Your task to perform on an android device: Find coffee shops on Maps Image 0: 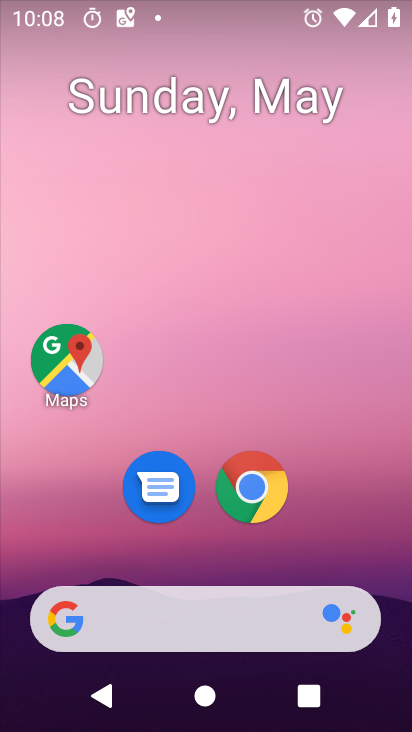
Step 0: drag from (182, 561) to (263, 188)
Your task to perform on an android device: Find coffee shops on Maps Image 1: 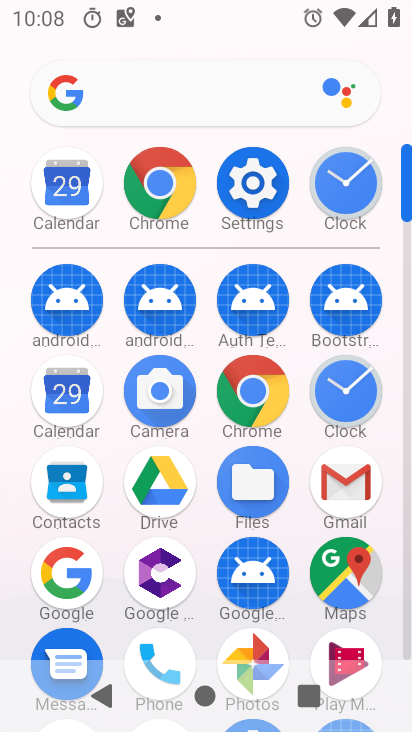
Step 1: click (360, 561)
Your task to perform on an android device: Find coffee shops on Maps Image 2: 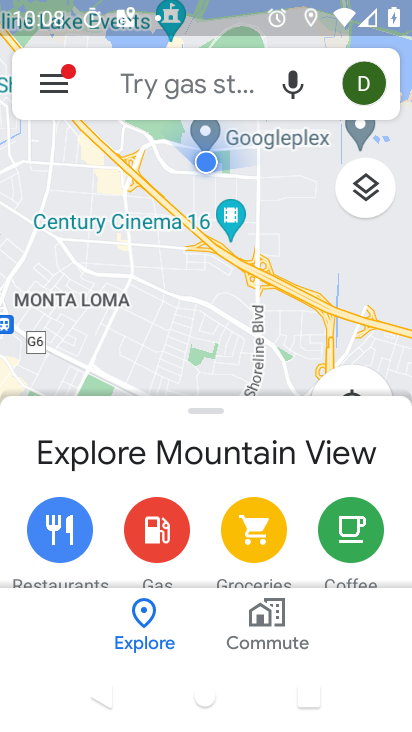
Step 2: click (157, 83)
Your task to perform on an android device: Find coffee shops on Maps Image 3: 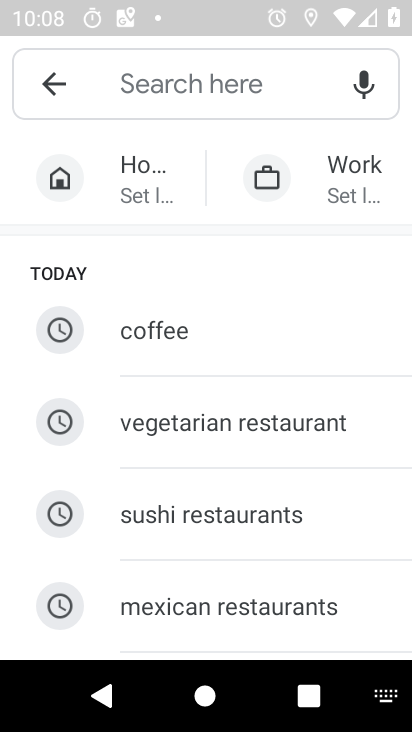
Step 3: click (170, 339)
Your task to perform on an android device: Find coffee shops on Maps Image 4: 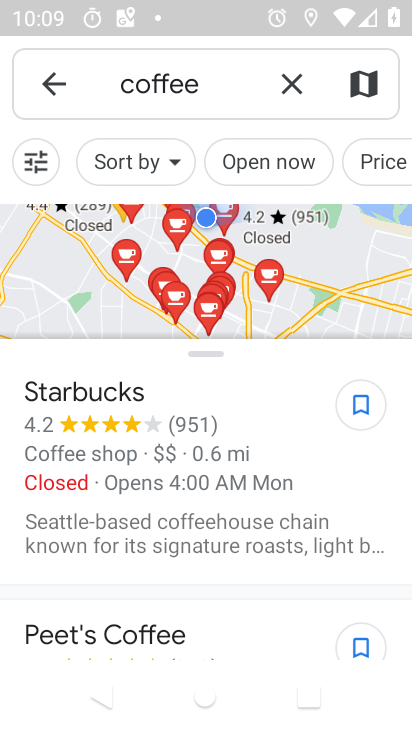
Step 4: task complete